Your task to perform on an android device: Go to Amazon Image 0: 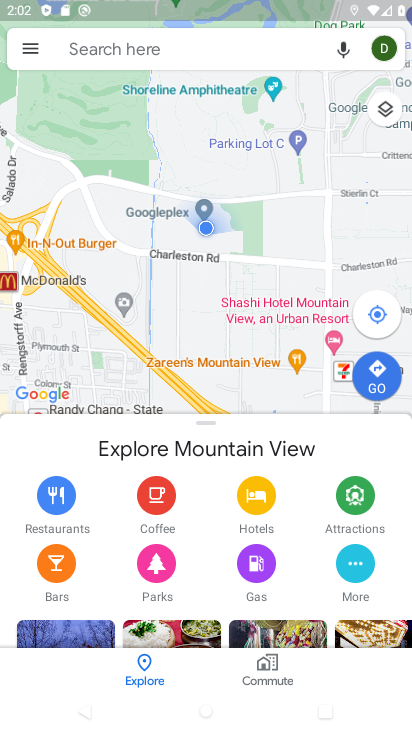
Step 0: press home button
Your task to perform on an android device: Go to Amazon Image 1: 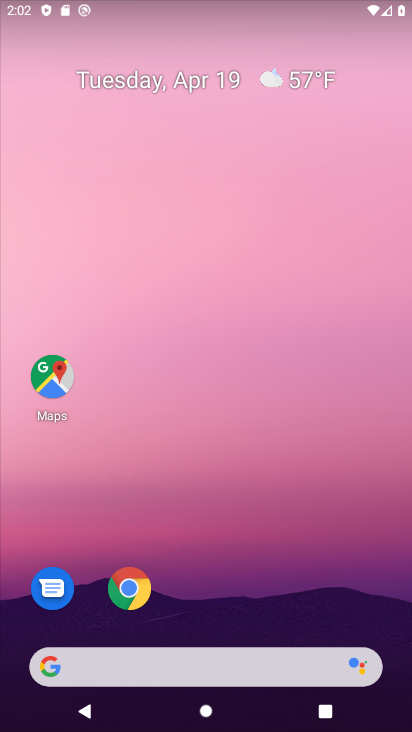
Step 1: click (132, 595)
Your task to perform on an android device: Go to Amazon Image 2: 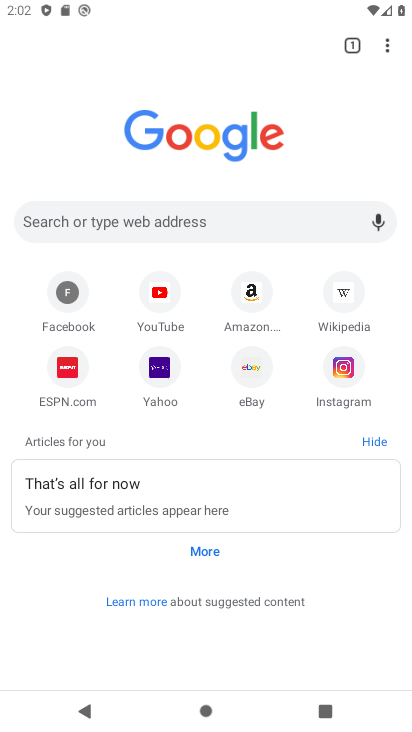
Step 2: click (256, 281)
Your task to perform on an android device: Go to Amazon Image 3: 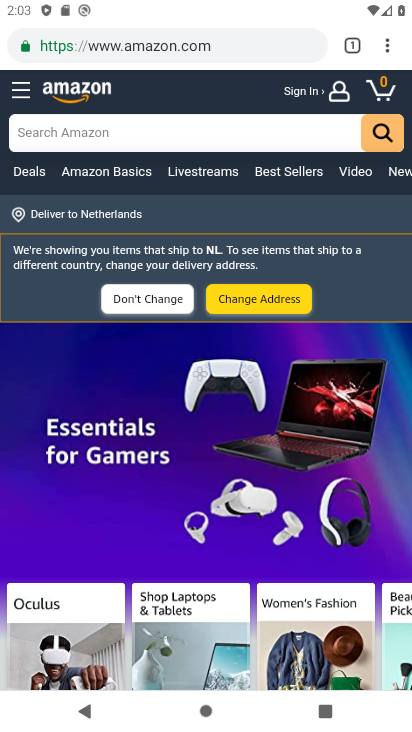
Step 3: task complete